Your task to perform on an android device: open app "Facebook" Image 0: 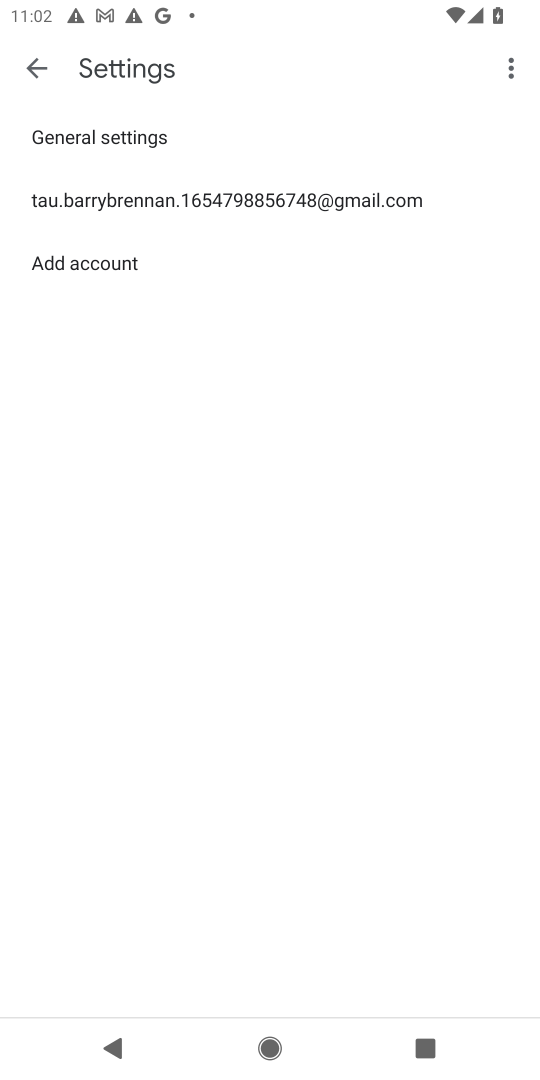
Step 0: press home button
Your task to perform on an android device: open app "Facebook" Image 1: 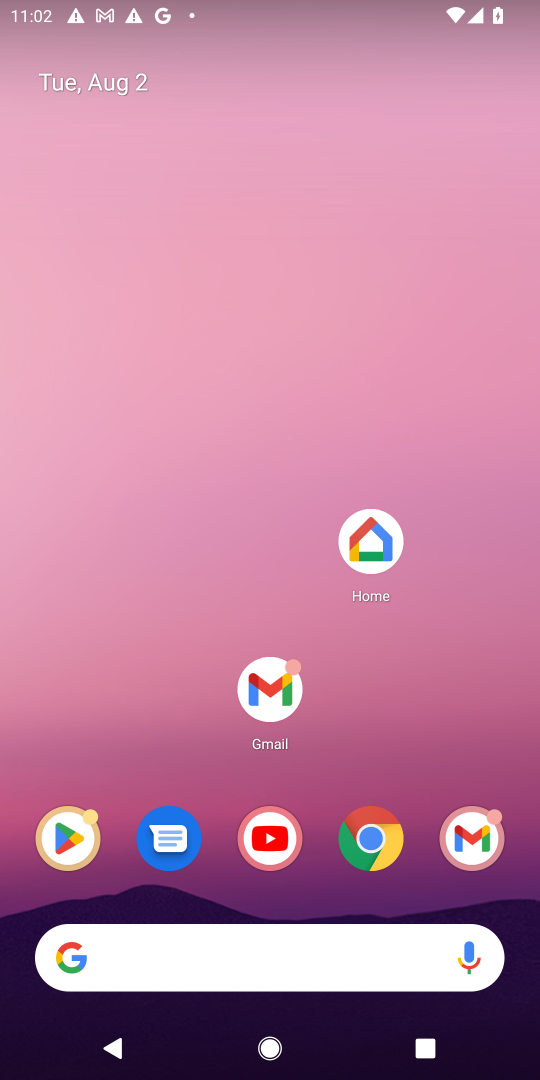
Step 1: drag from (427, 717) to (445, 118)
Your task to perform on an android device: open app "Facebook" Image 2: 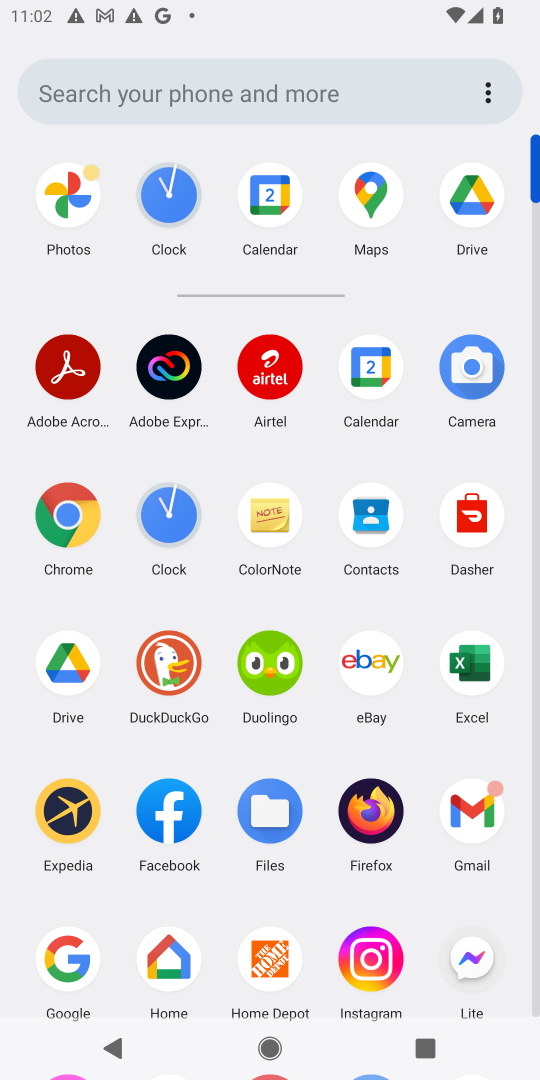
Step 2: drag from (307, 884) to (319, 450)
Your task to perform on an android device: open app "Facebook" Image 3: 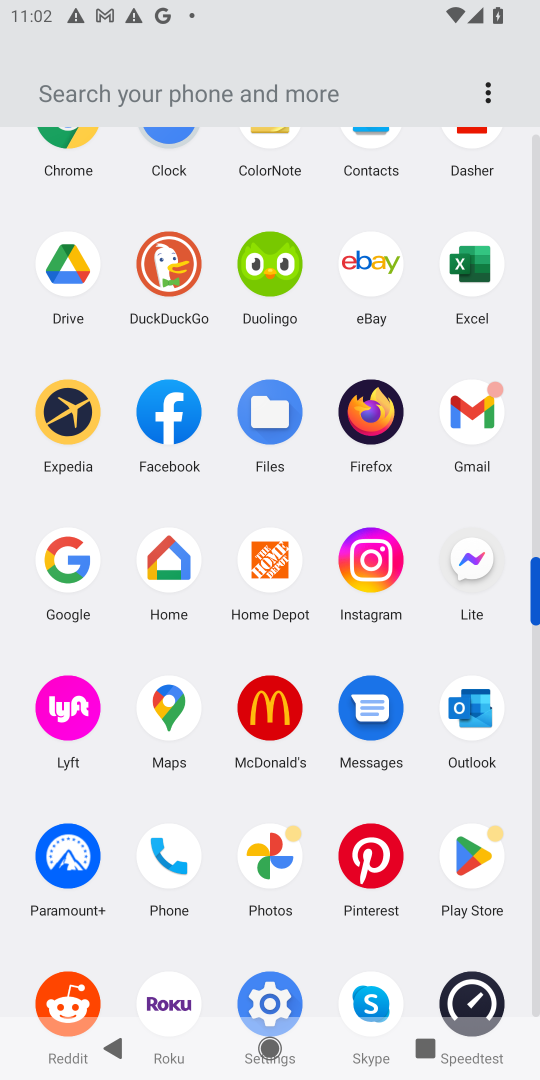
Step 3: drag from (207, 816) to (211, 448)
Your task to perform on an android device: open app "Facebook" Image 4: 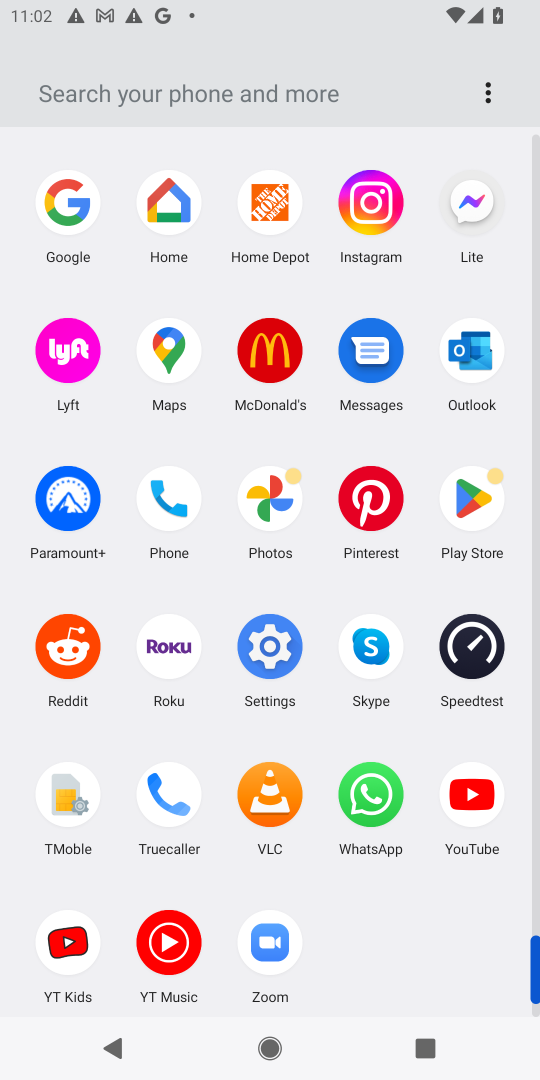
Step 4: click (480, 511)
Your task to perform on an android device: open app "Facebook" Image 5: 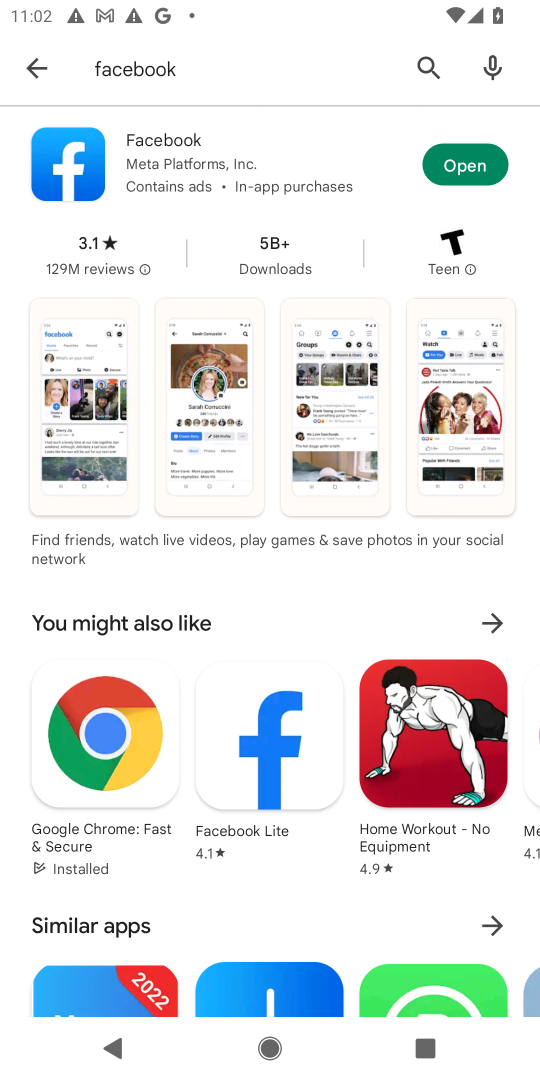
Step 5: click (425, 71)
Your task to perform on an android device: open app "Facebook" Image 6: 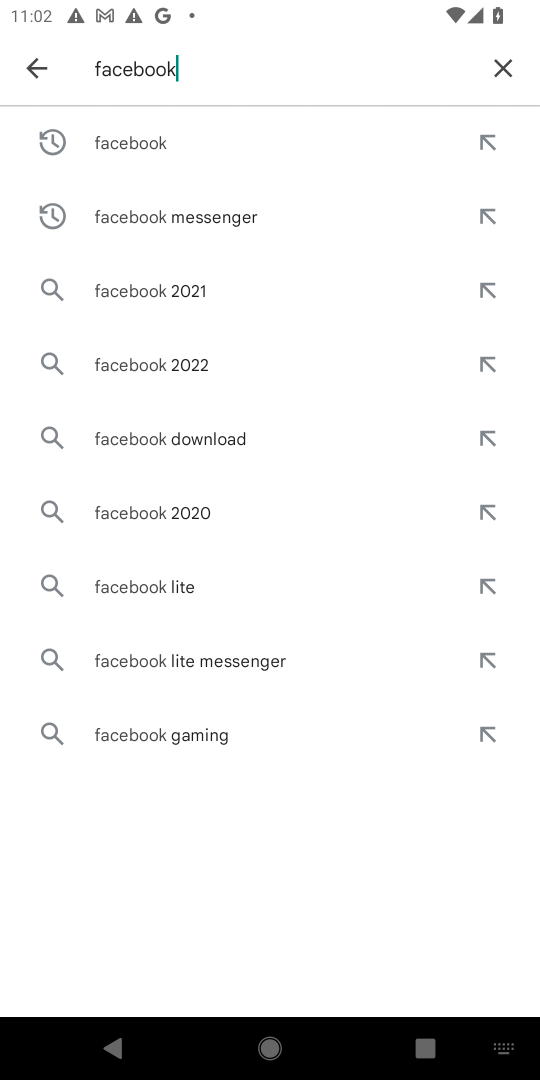
Step 6: click (508, 69)
Your task to perform on an android device: open app "Facebook" Image 7: 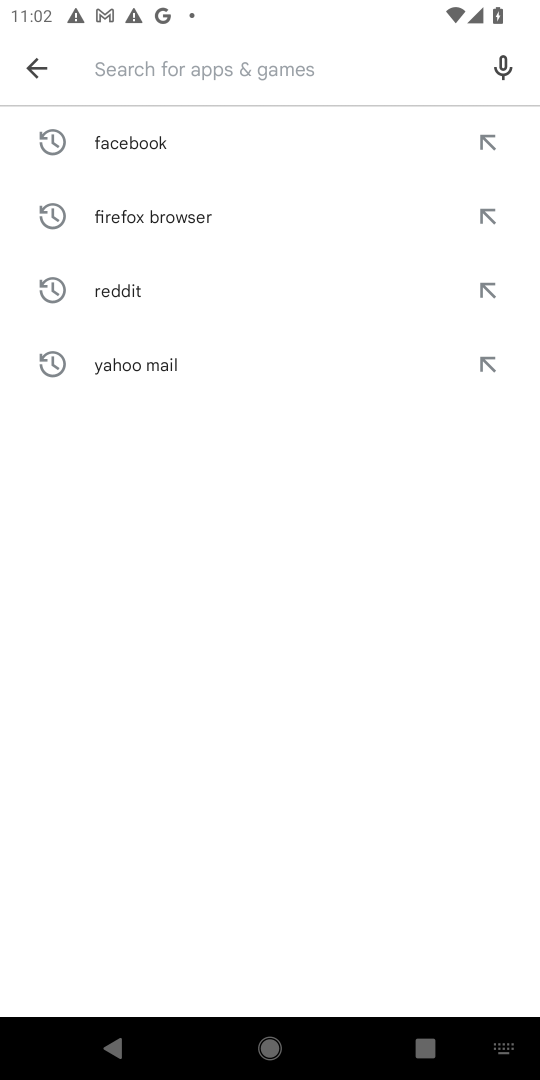
Step 7: click (334, 63)
Your task to perform on an android device: open app "Facebook" Image 8: 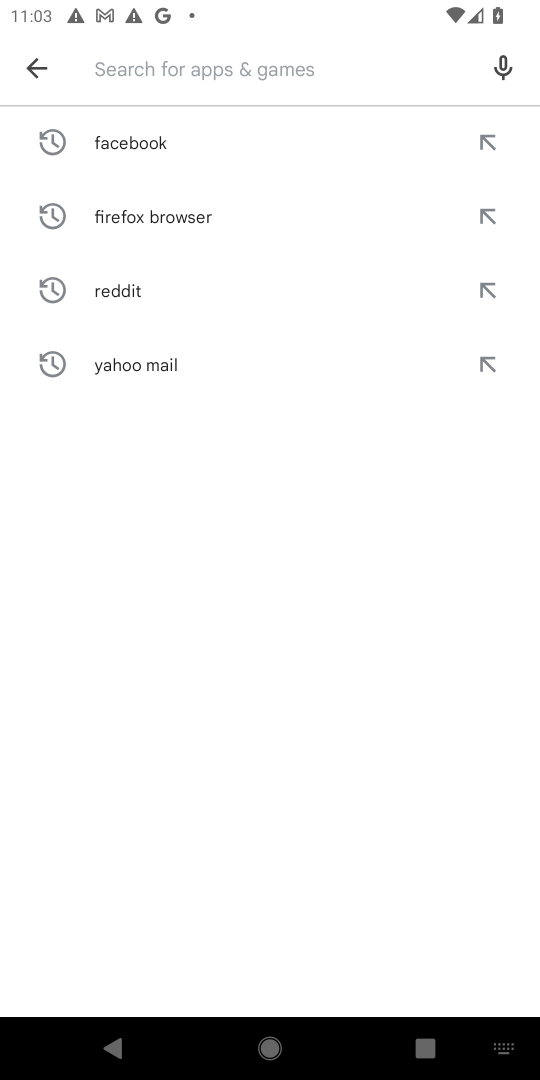
Step 8: type "facebook"
Your task to perform on an android device: open app "Facebook" Image 9: 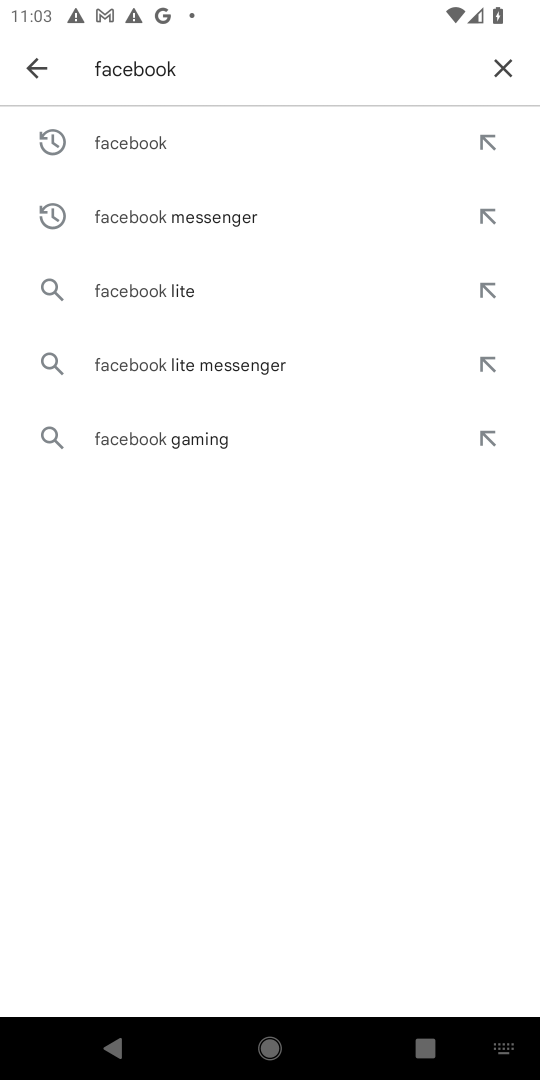
Step 9: click (217, 144)
Your task to perform on an android device: open app "Facebook" Image 10: 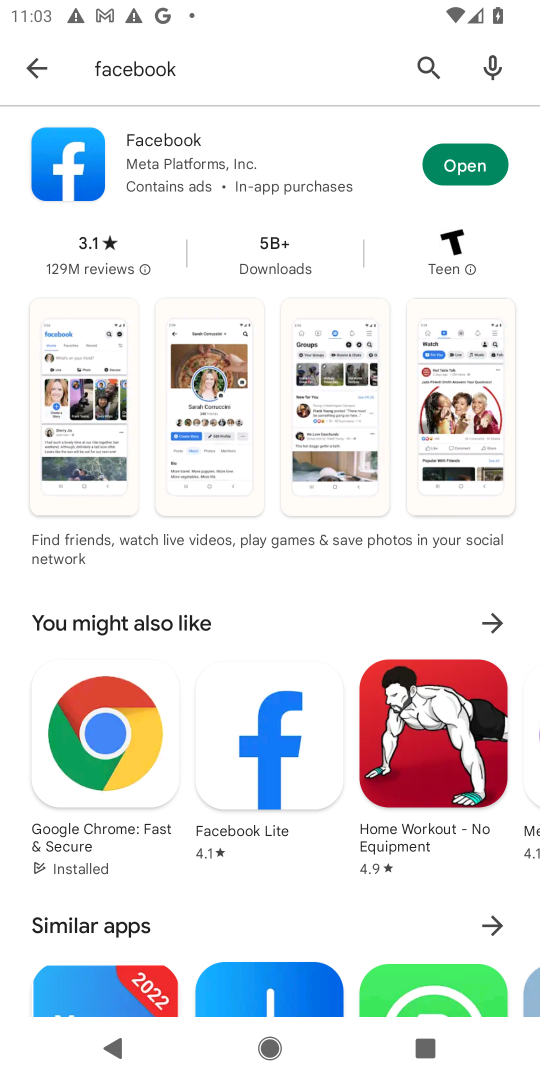
Step 10: click (466, 166)
Your task to perform on an android device: open app "Facebook" Image 11: 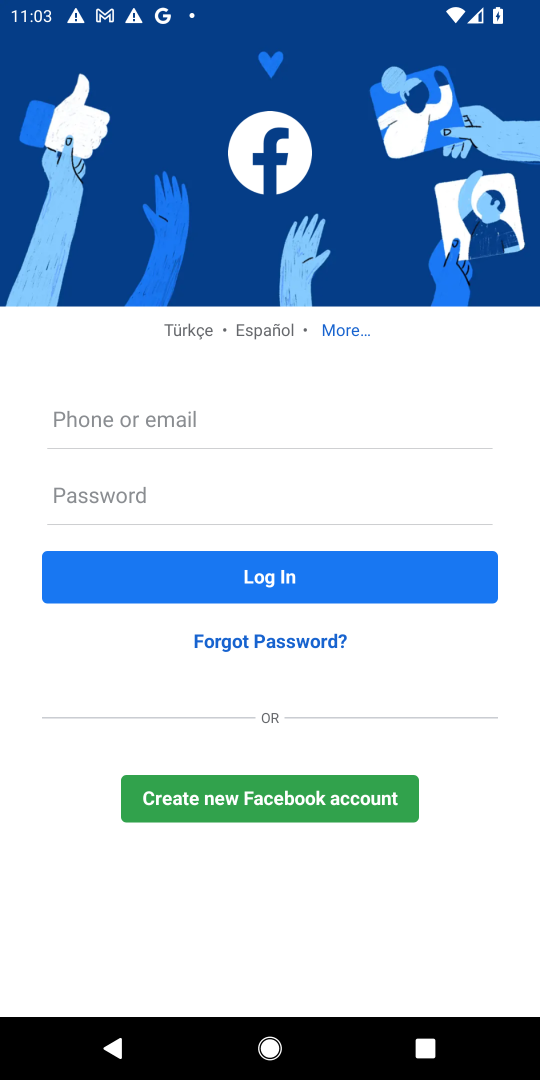
Step 11: task complete